Your task to perform on an android device: show emergency info Image 0: 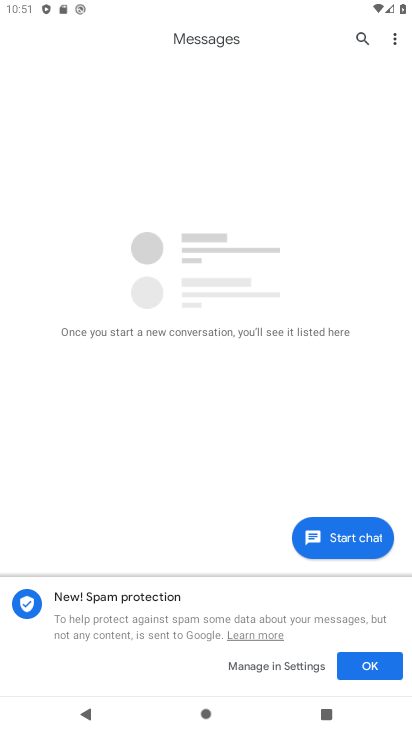
Step 0: press home button
Your task to perform on an android device: show emergency info Image 1: 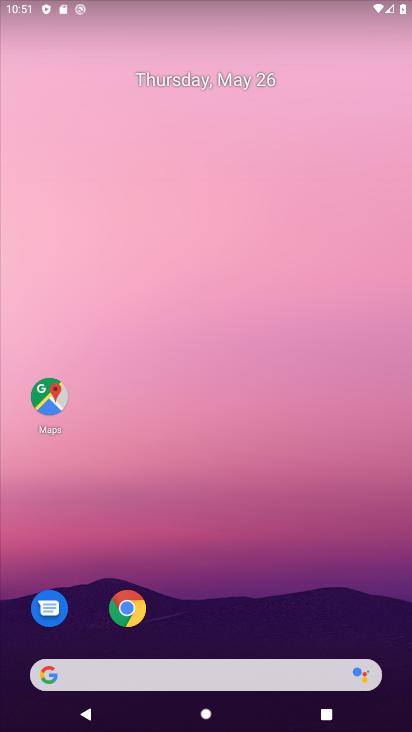
Step 1: drag from (243, 609) to (179, 157)
Your task to perform on an android device: show emergency info Image 2: 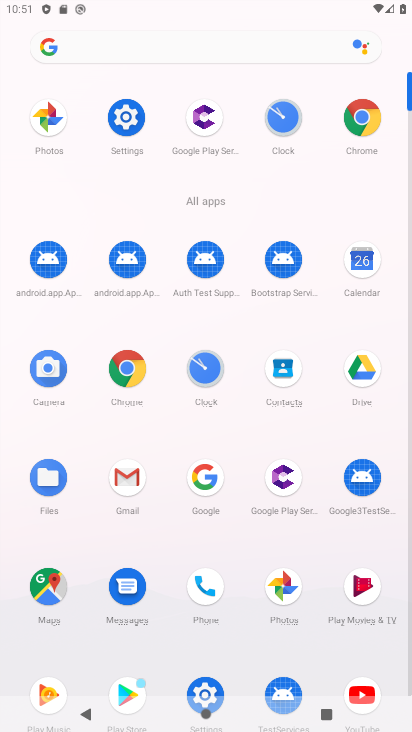
Step 2: click (130, 124)
Your task to perform on an android device: show emergency info Image 3: 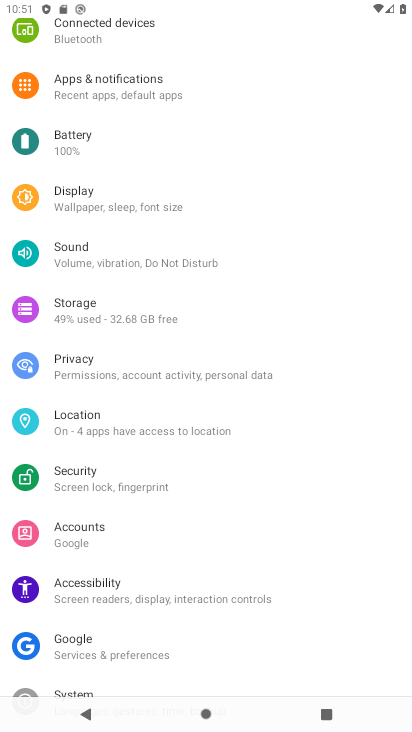
Step 3: drag from (178, 172) to (181, 623)
Your task to perform on an android device: show emergency info Image 4: 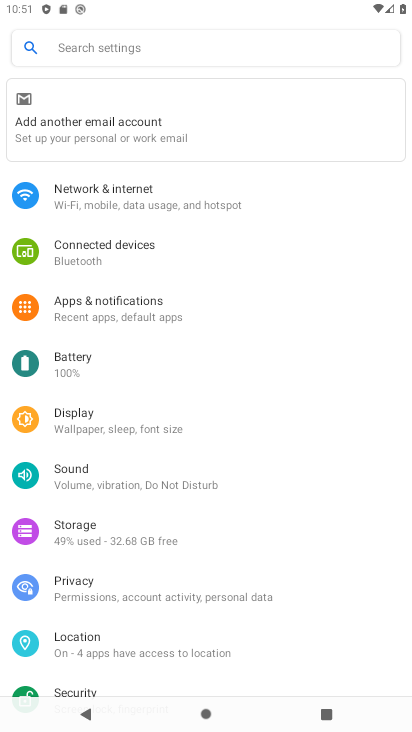
Step 4: drag from (231, 673) to (165, 200)
Your task to perform on an android device: show emergency info Image 5: 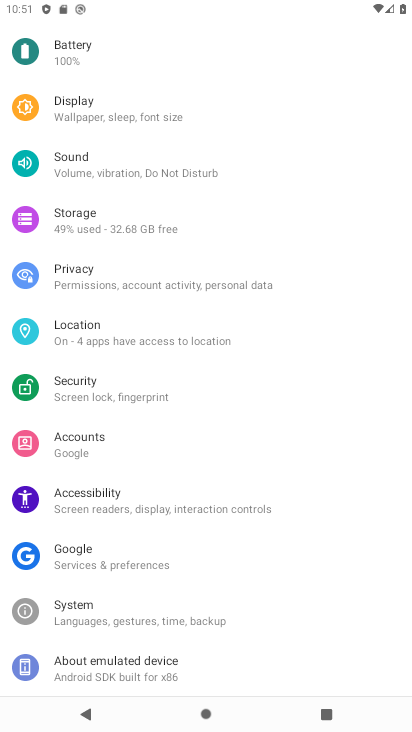
Step 5: click (149, 674)
Your task to perform on an android device: show emergency info Image 6: 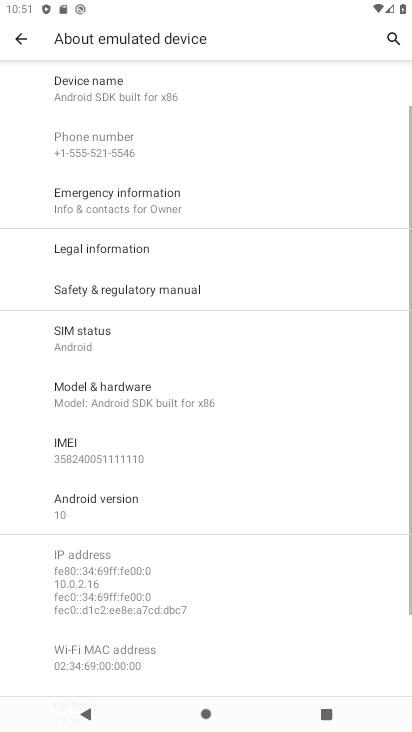
Step 6: click (176, 205)
Your task to perform on an android device: show emergency info Image 7: 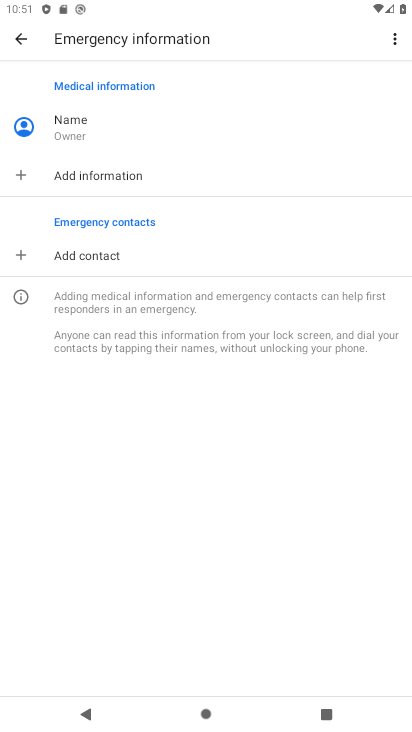
Step 7: task complete